Your task to perform on an android device: toggle javascript in the chrome app Image 0: 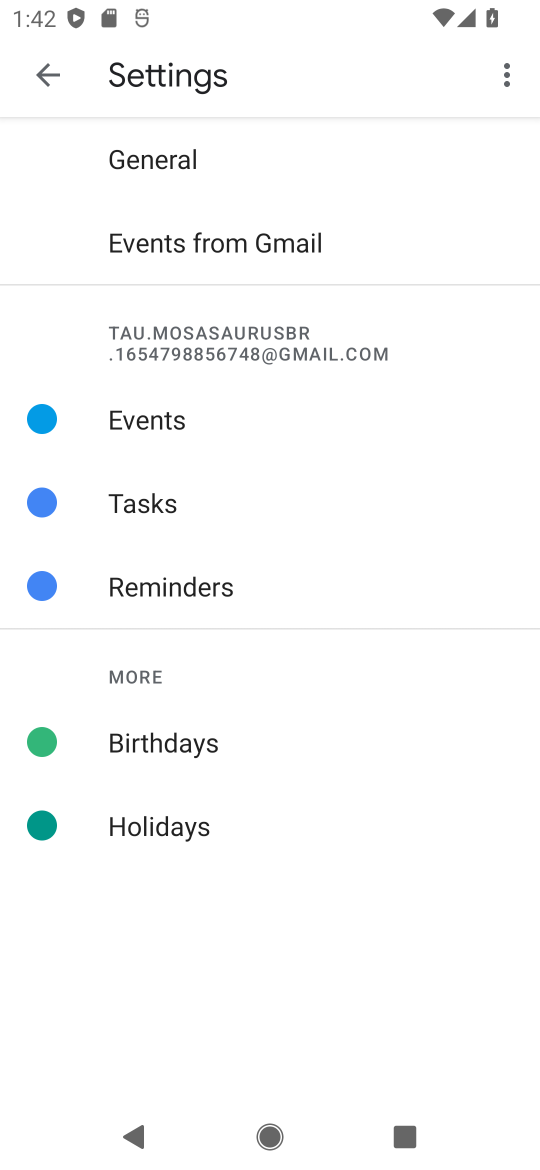
Step 0: press home button
Your task to perform on an android device: toggle javascript in the chrome app Image 1: 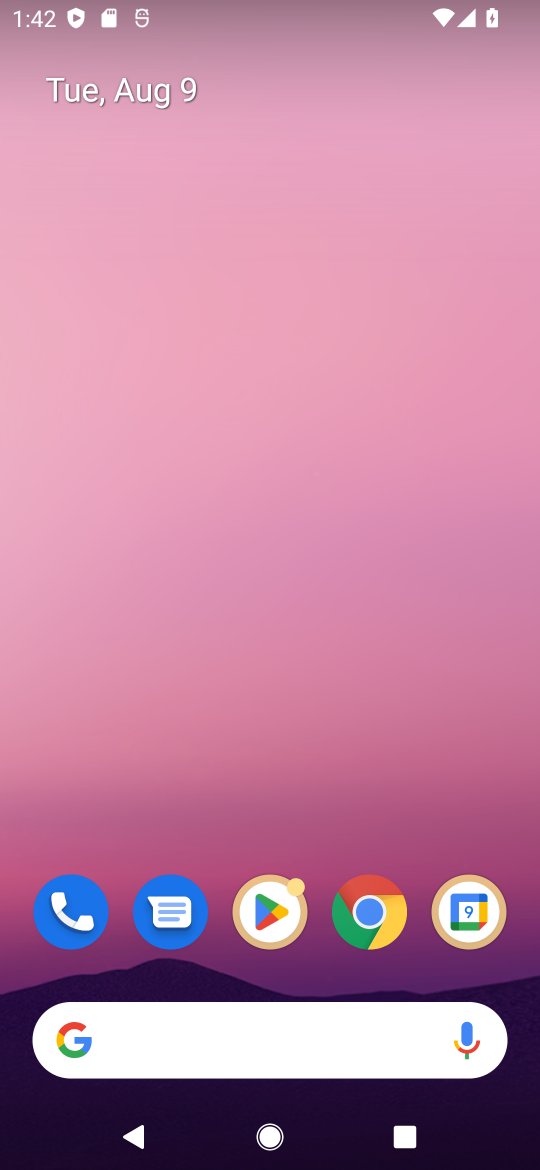
Step 1: click (375, 906)
Your task to perform on an android device: toggle javascript in the chrome app Image 2: 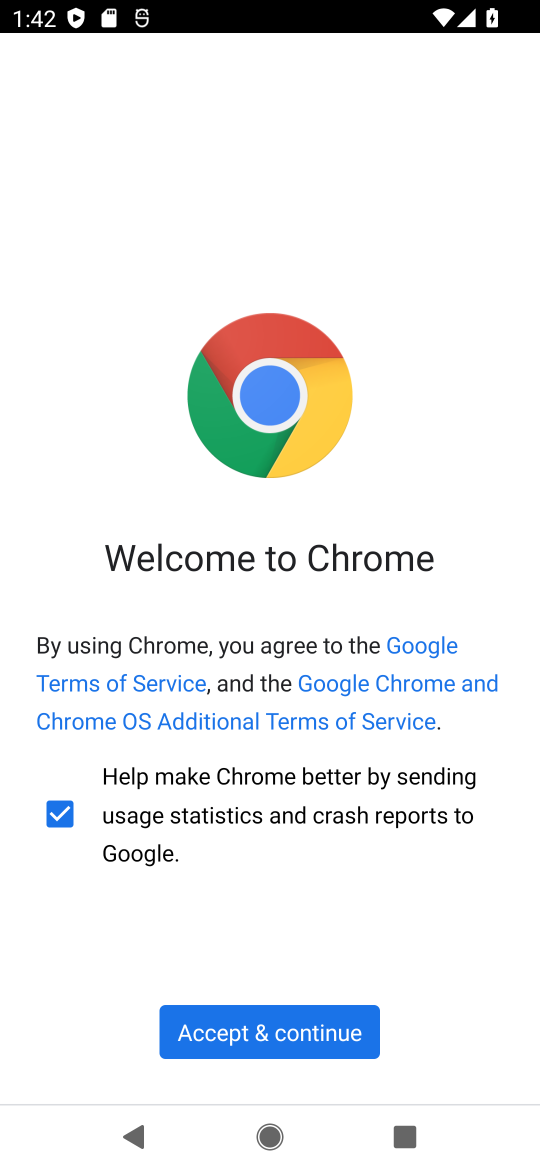
Step 2: click (262, 1033)
Your task to perform on an android device: toggle javascript in the chrome app Image 3: 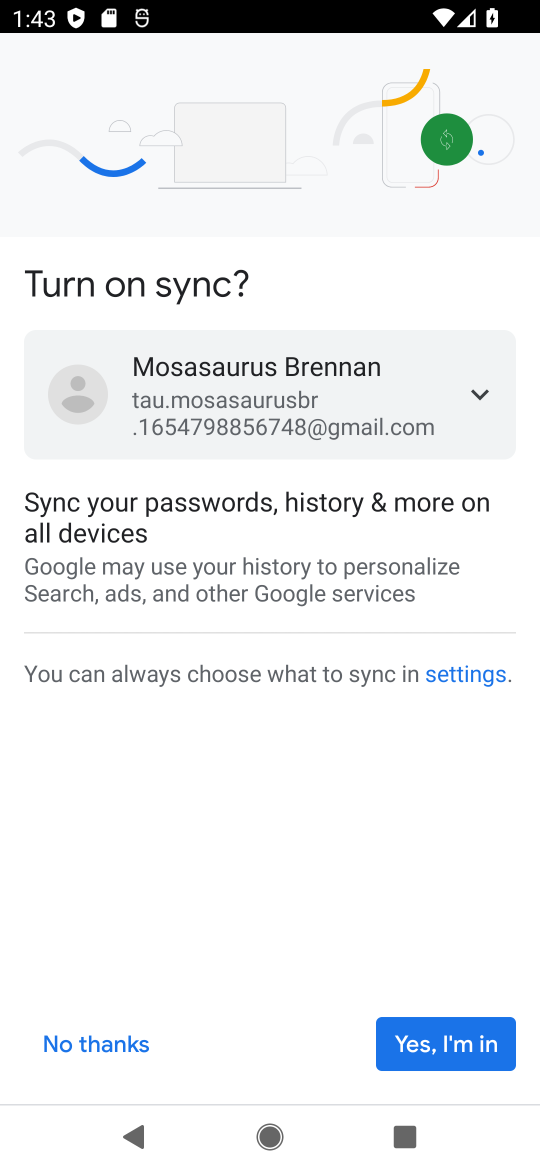
Step 3: click (456, 1039)
Your task to perform on an android device: toggle javascript in the chrome app Image 4: 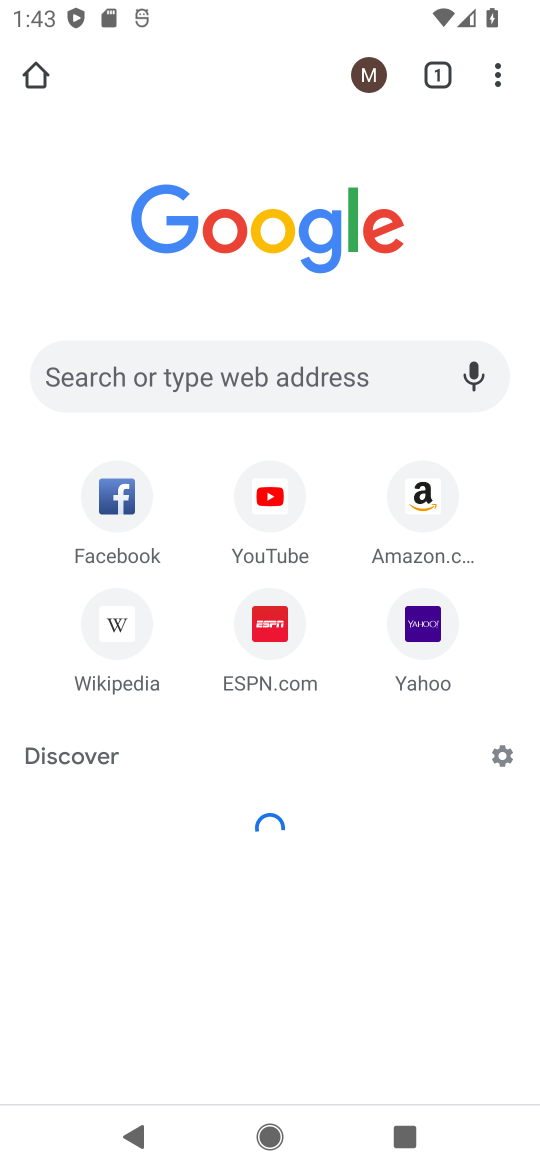
Step 4: click (500, 77)
Your task to perform on an android device: toggle javascript in the chrome app Image 5: 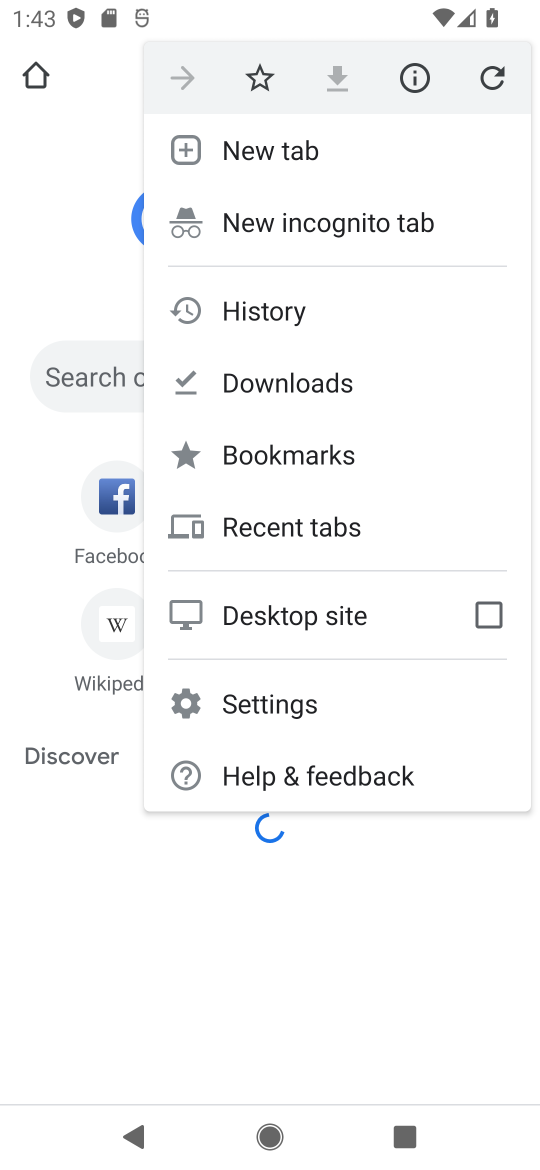
Step 5: click (262, 711)
Your task to perform on an android device: toggle javascript in the chrome app Image 6: 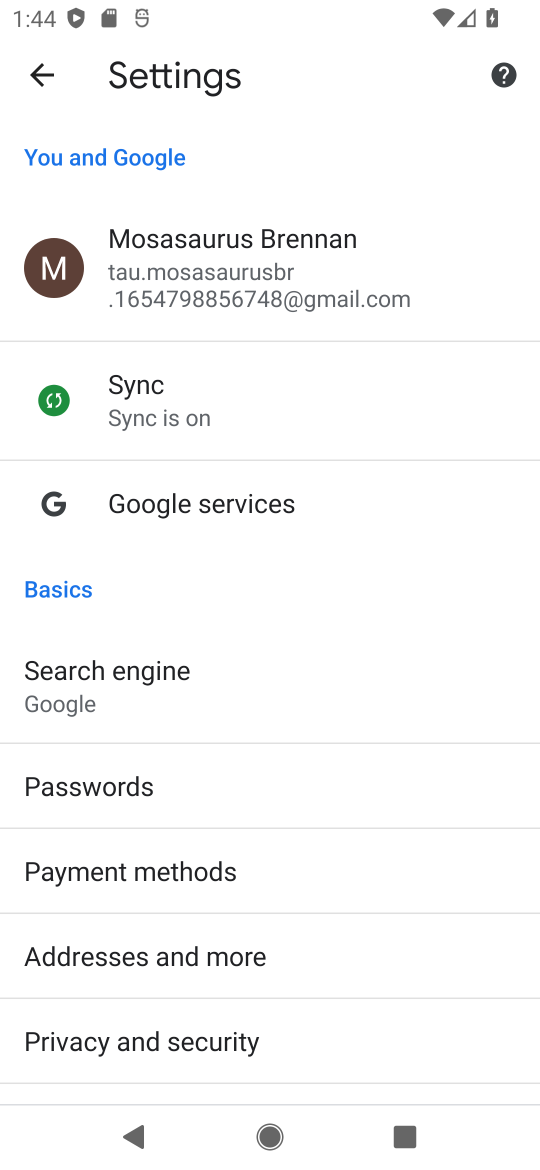
Step 6: drag from (319, 977) to (323, 349)
Your task to perform on an android device: toggle javascript in the chrome app Image 7: 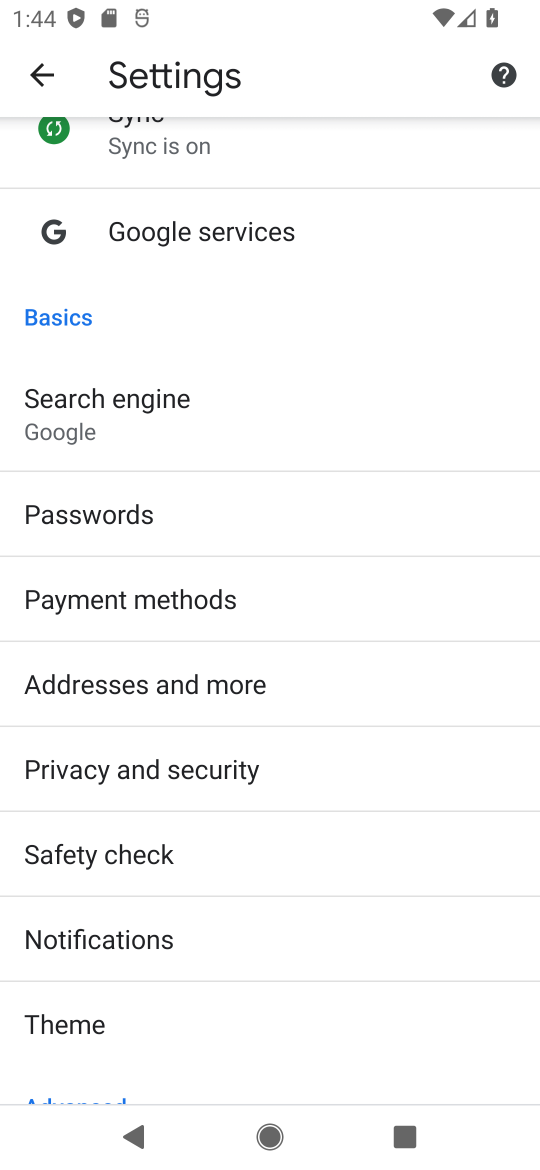
Step 7: drag from (272, 951) to (327, 142)
Your task to perform on an android device: toggle javascript in the chrome app Image 8: 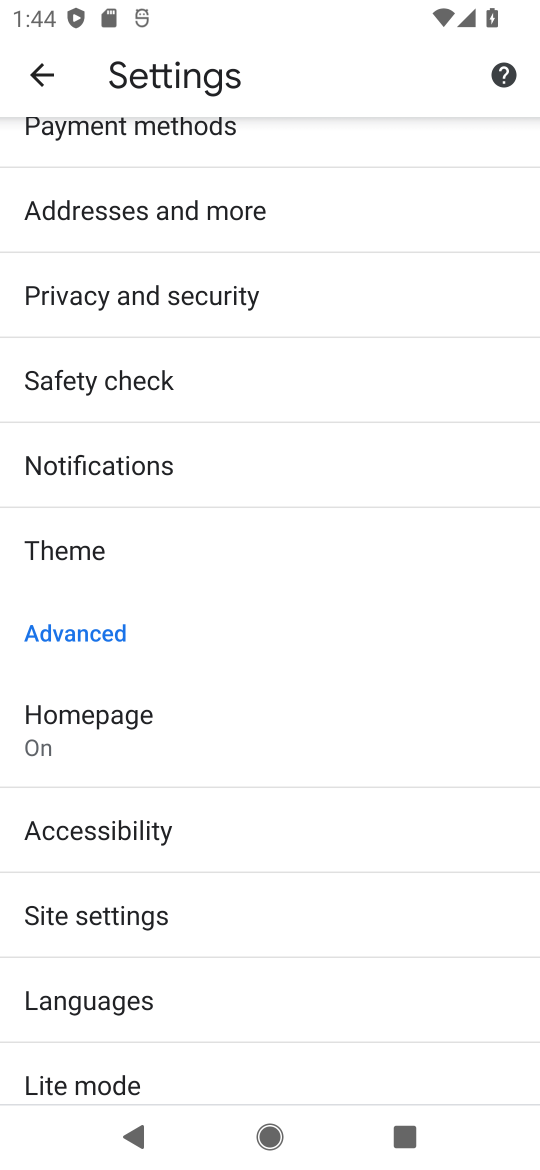
Step 8: click (105, 899)
Your task to perform on an android device: toggle javascript in the chrome app Image 9: 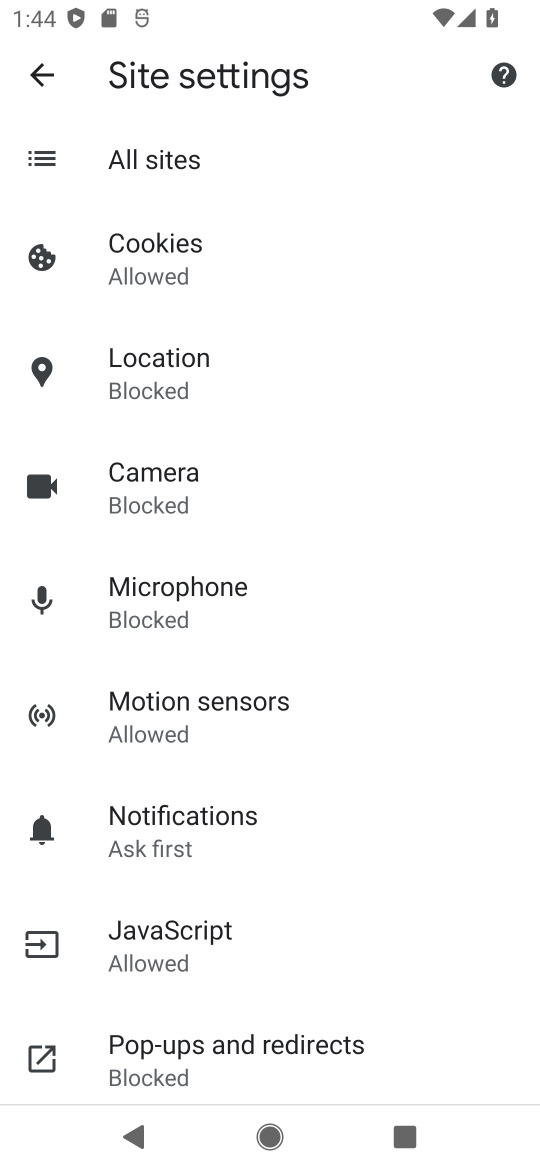
Step 9: click (202, 921)
Your task to perform on an android device: toggle javascript in the chrome app Image 10: 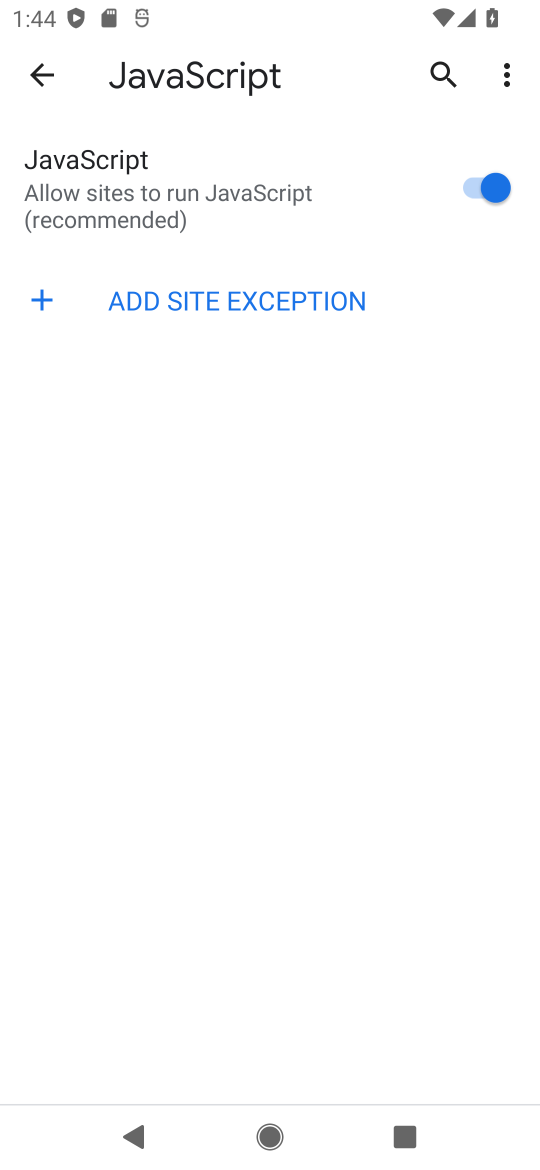
Step 10: click (497, 191)
Your task to perform on an android device: toggle javascript in the chrome app Image 11: 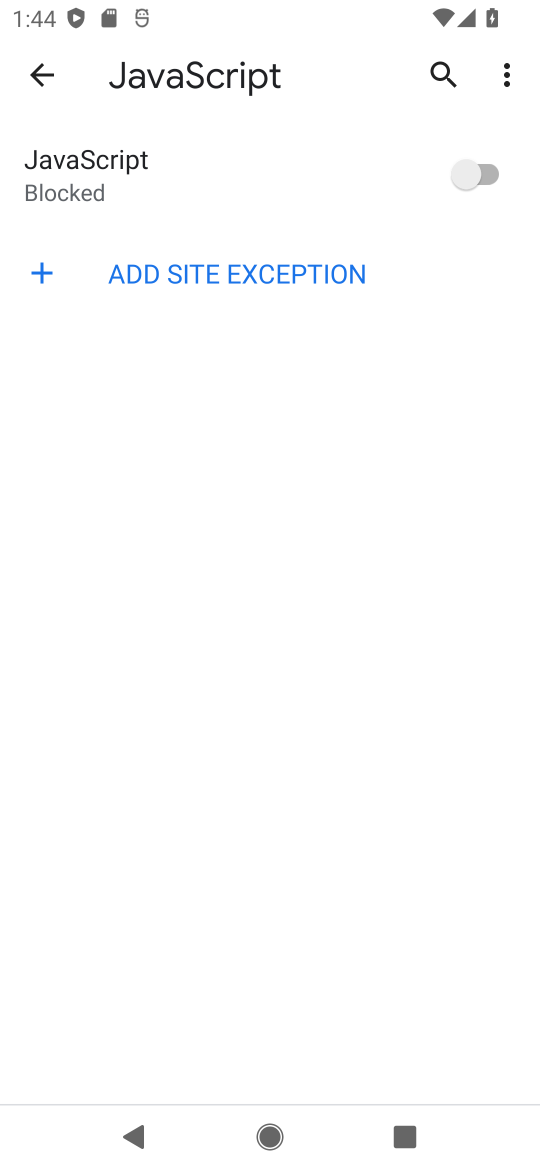
Step 11: task complete